Your task to perform on an android device: Go to settings Image 0: 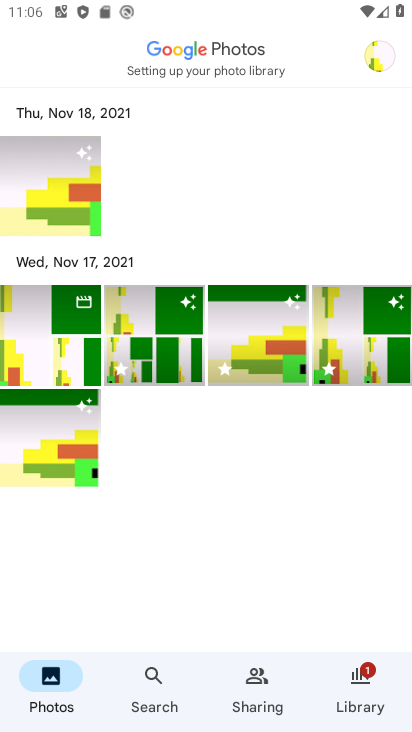
Step 0: press home button
Your task to perform on an android device: Go to settings Image 1: 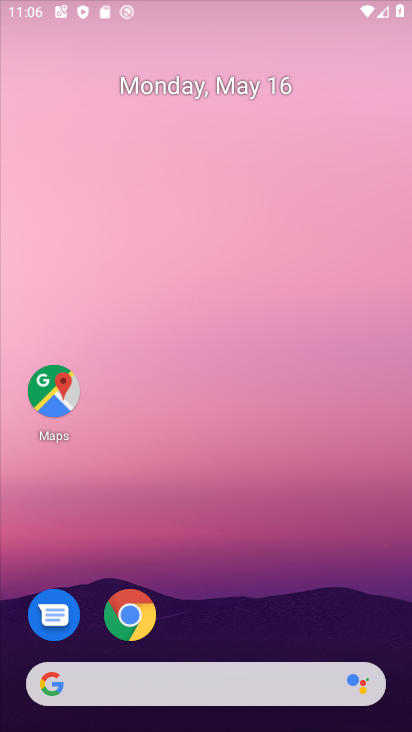
Step 1: drag from (224, 725) to (230, 234)
Your task to perform on an android device: Go to settings Image 2: 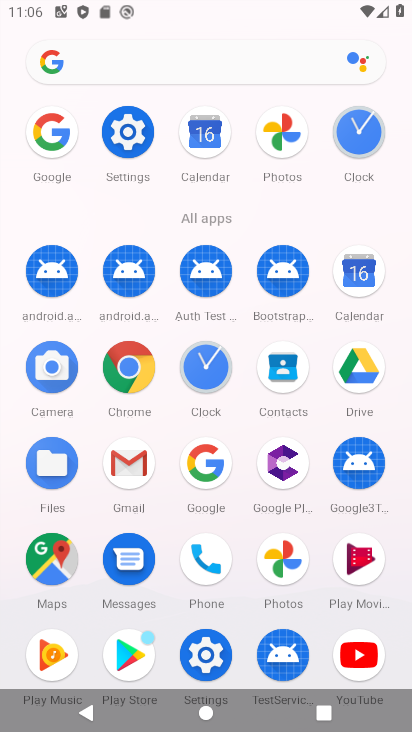
Step 2: click (206, 659)
Your task to perform on an android device: Go to settings Image 3: 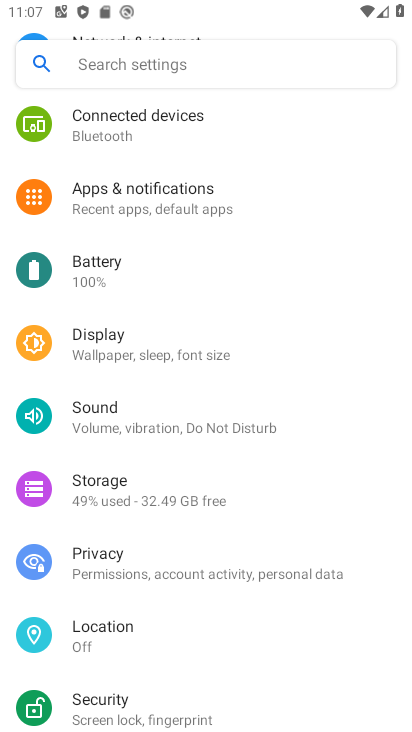
Step 3: task complete